Your task to perform on an android device: turn off wifi Image 0: 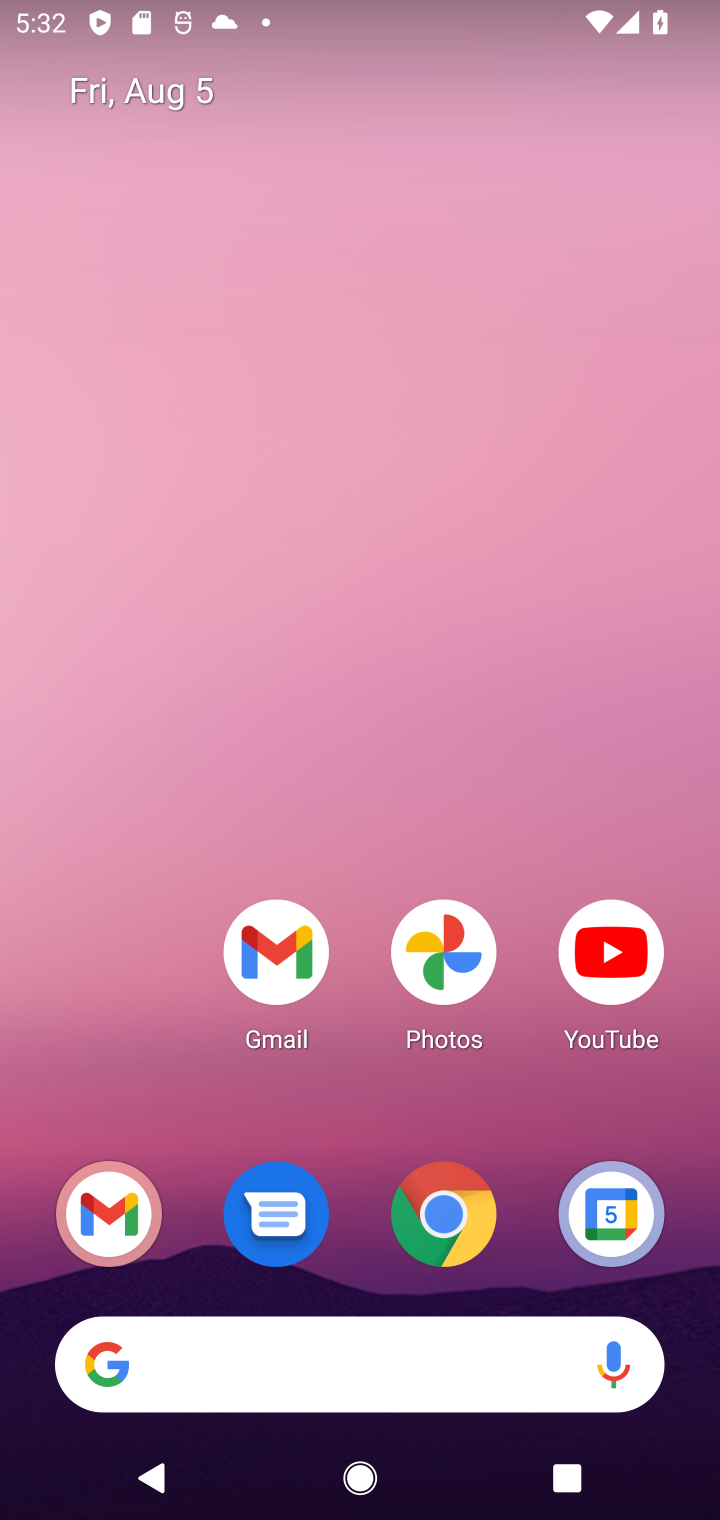
Step 0: drag from (123, 1016) to (136, 33)
Your task to perform on an android device: turn off wifi Image 1: 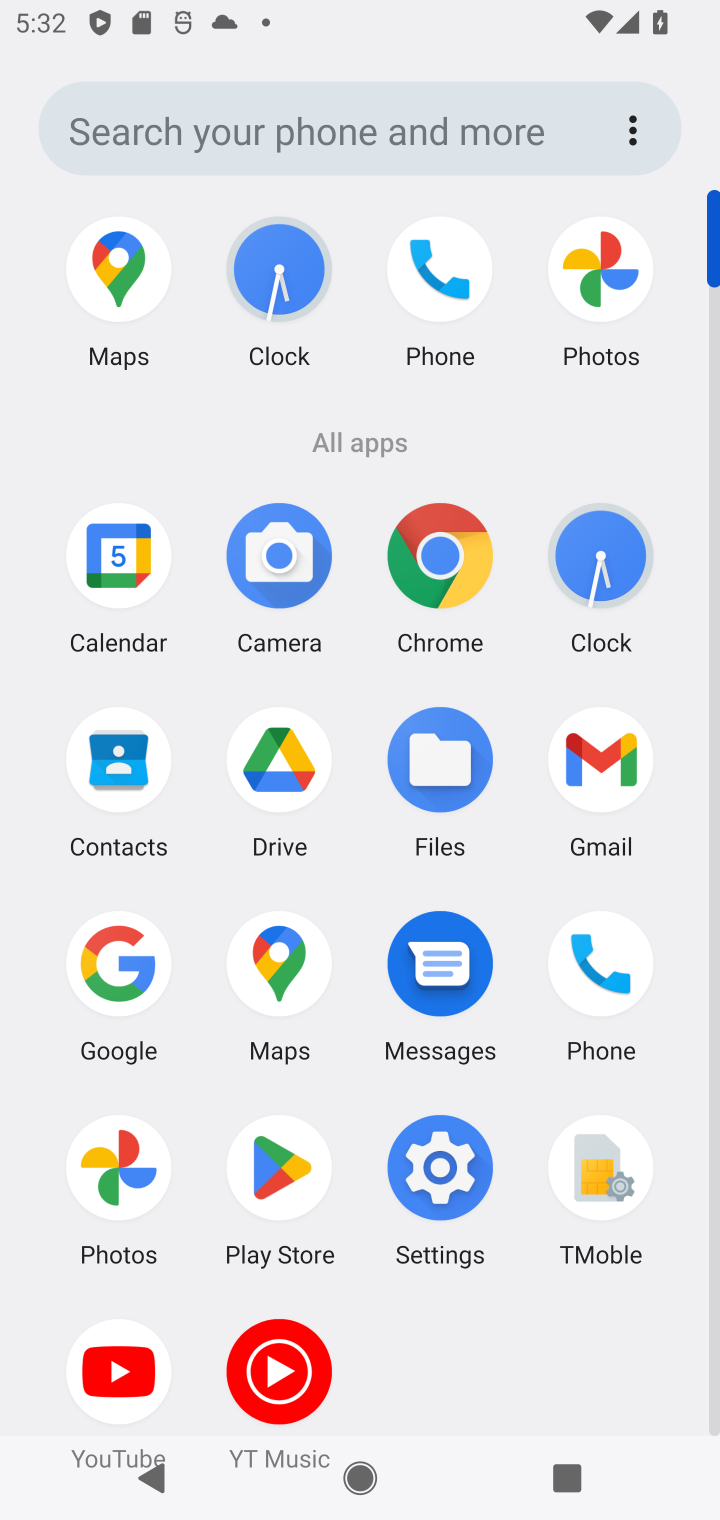
Step 1: click (436, 1152)
Your task to perform on an android device: turn off wifi Image 2: 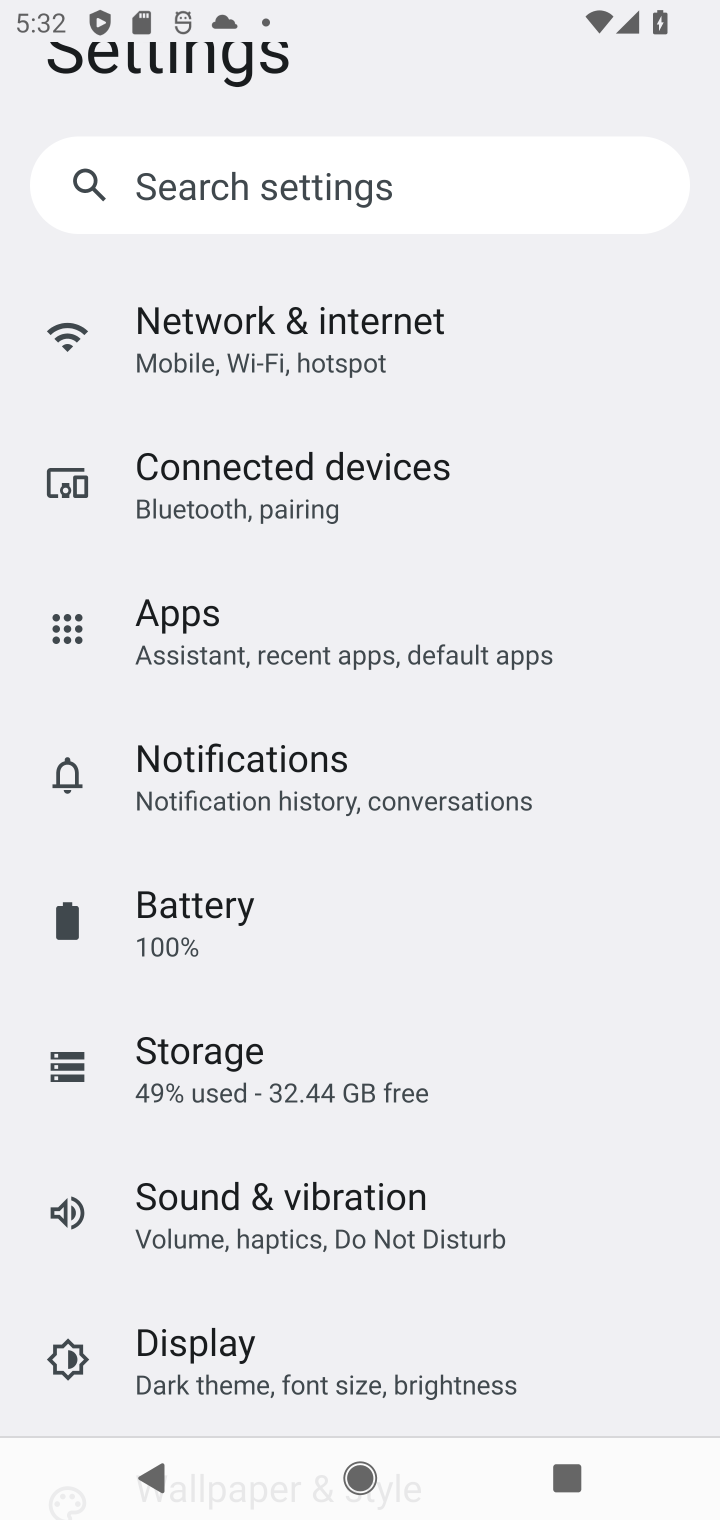
Step 2: click (406, 336)
Your task to perform on an android device: turn off wifi Image 3: 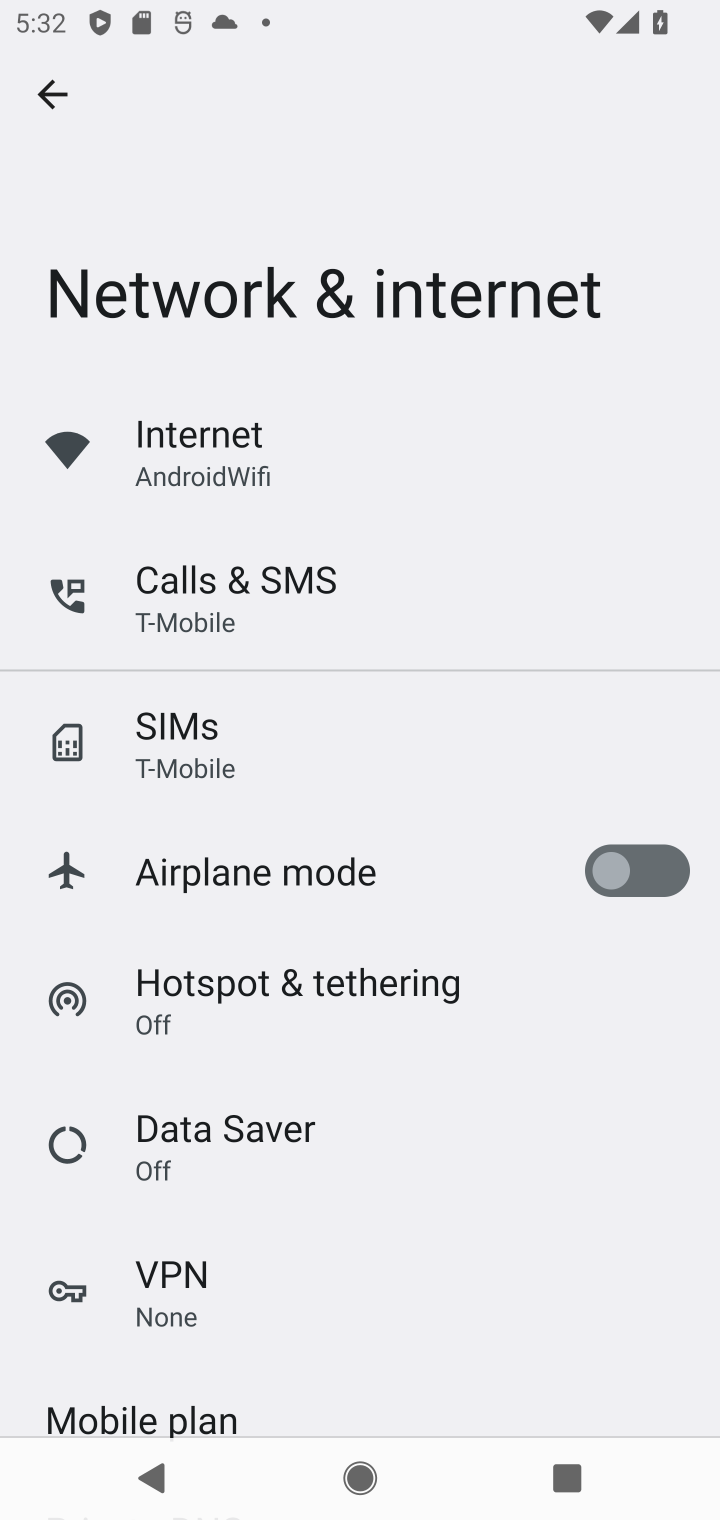
Step 3: click (247, 450)
Your task to perform on an android device: turn off wifi Image 4: 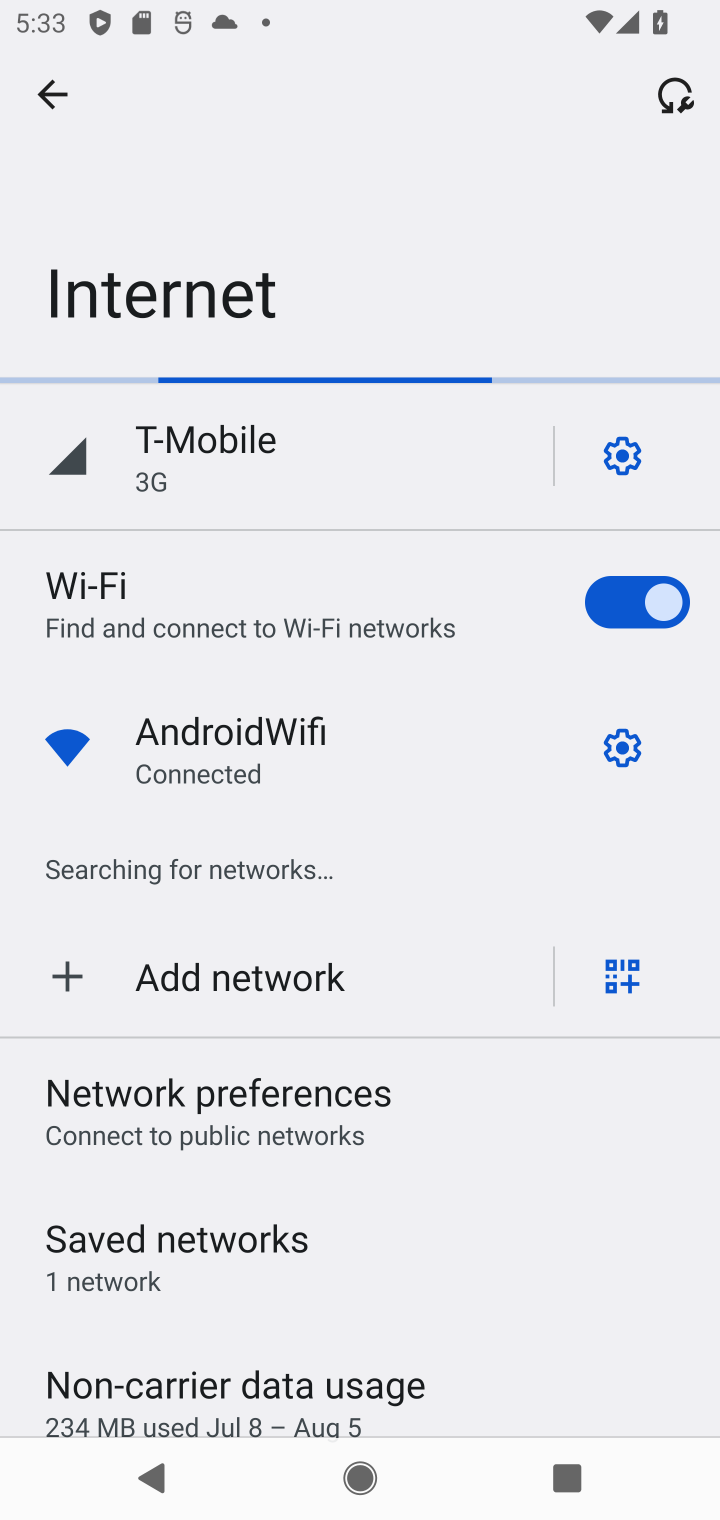
Step 4: click (611, 594)
Your task to perform on an android device: turn off wifi Image 5: 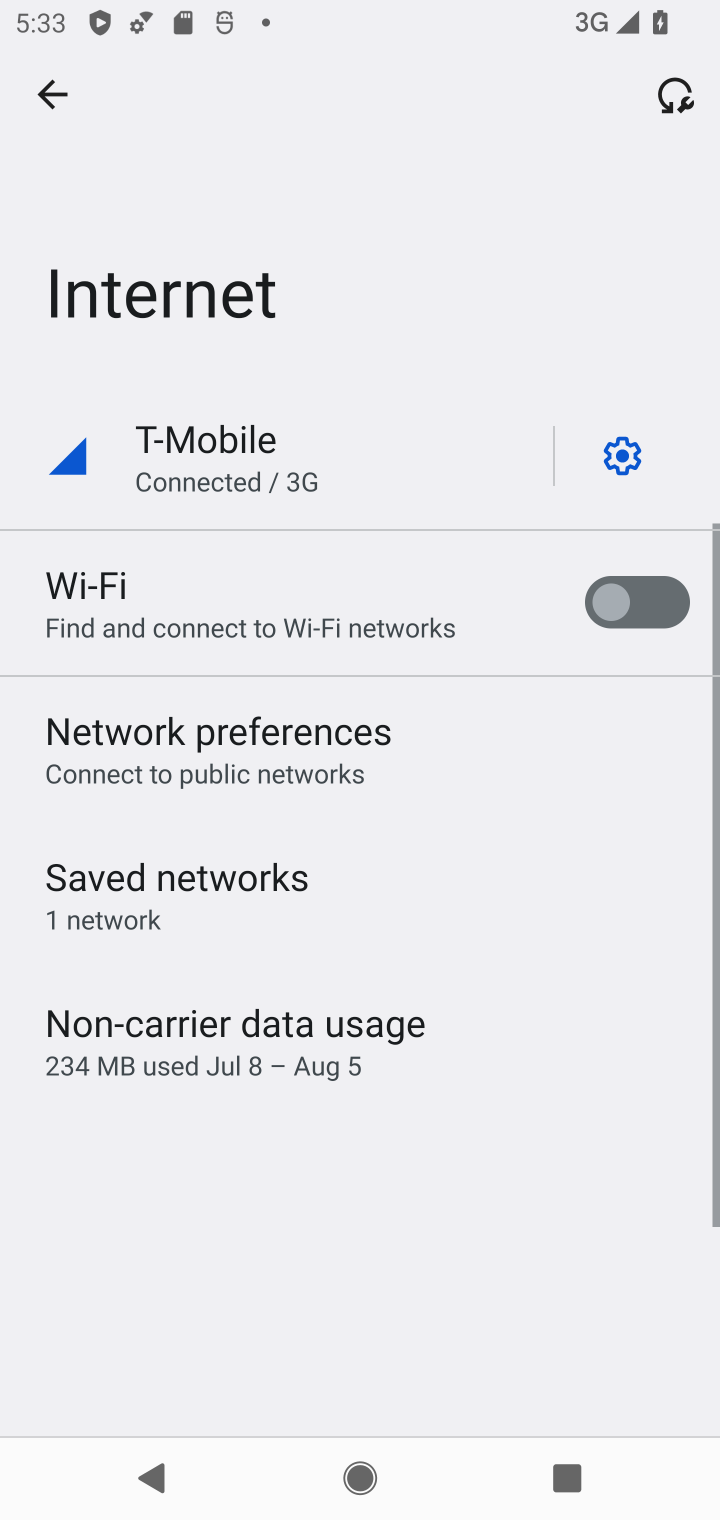
Step 5: task complete